Your task to perform on an android device: Play the last video I watched on Youtube Image 0: 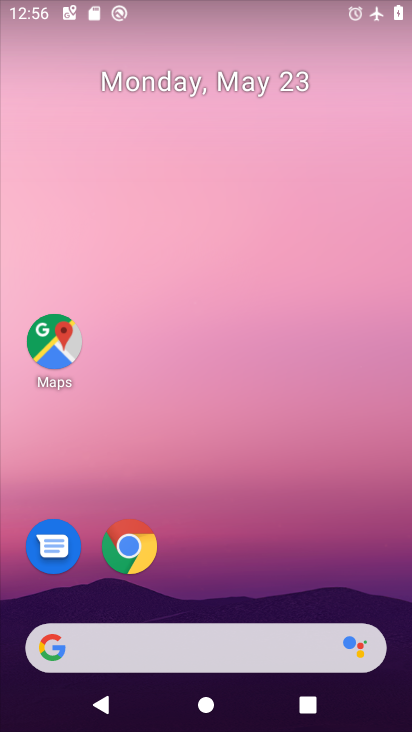
Step 0: drag from (242, 613) to (335, 14)
Your task to perform on an android device: Play the last video I watched on Youtube Image 1: 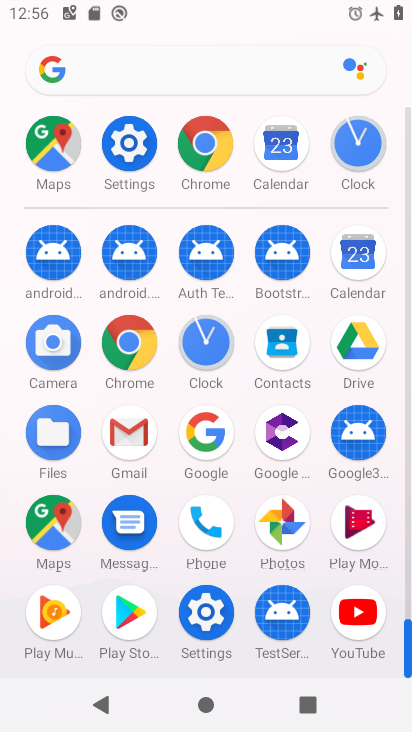
Step 1: click (368, 646)
Your task to perform on an android device: Play the last video I watched on Youtube Image 2: 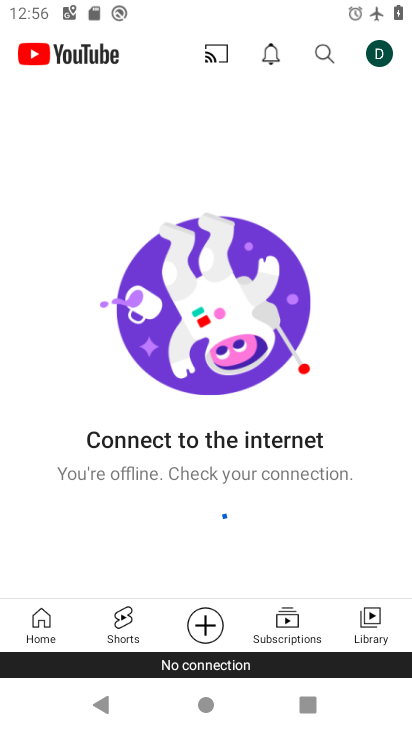
Step 2: click (388, 639)
Your task to perform on an android device: Play the last video I watched on Youtube Image 3: 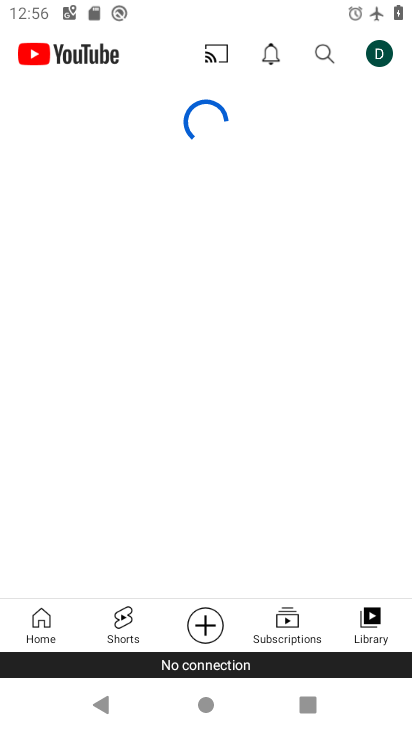
Step 3: task complete